Your task to perform on an android device: change the upload size in google photos Image 0: 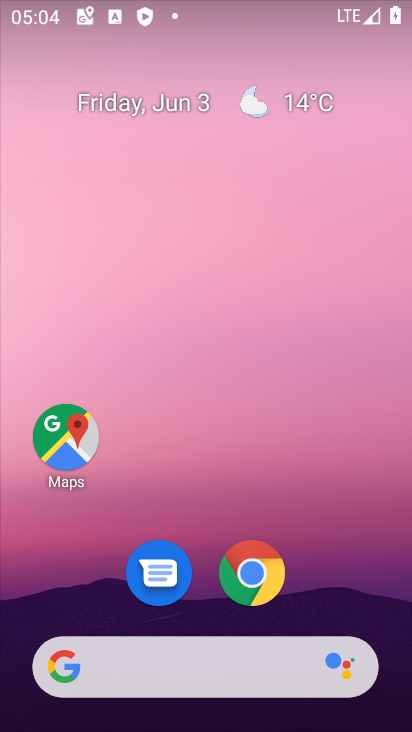
Step 0: drag from (320, 609) to (293, 157)
Your task to perform on an android device: change the upload size in google photos Image 1: 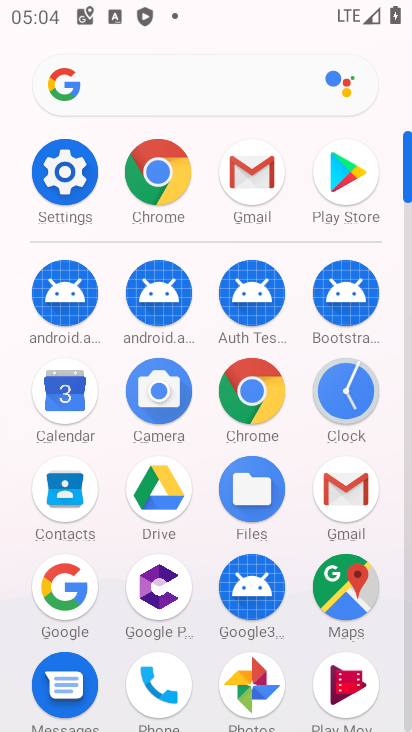
Step 1: click (250, 690)
Your task to perform on an android device: change the upload size in google photos Image 2: 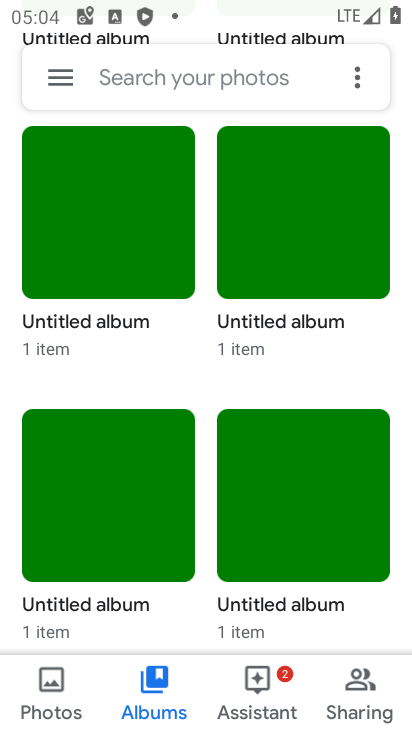
Step 2: click (355, 78)
Your task to perform on an android device: change the upload size in google photos Image 3: 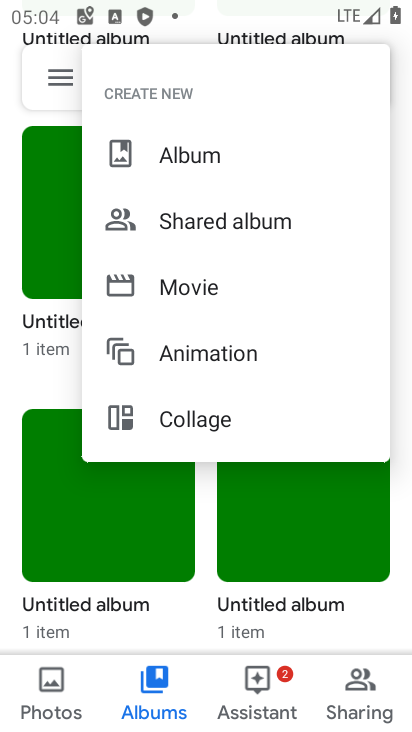
Step 3: click (53, 86)
Your task to perform on an android device: change the upload size in google photos Image 4: 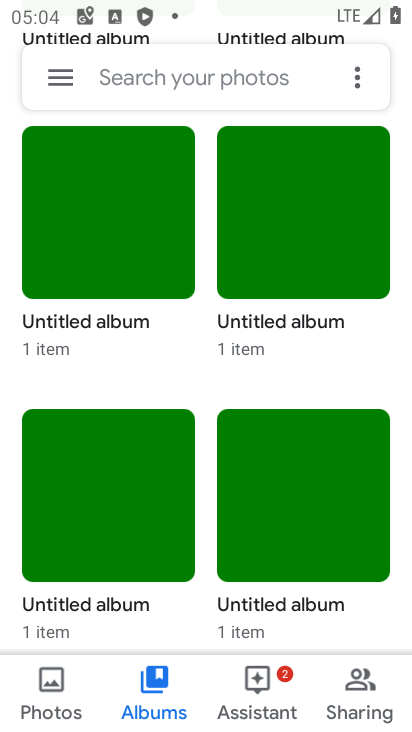
Step 4: click (54, 84)
Your task to perform on an android device: change the upload size in google photos Image 5: 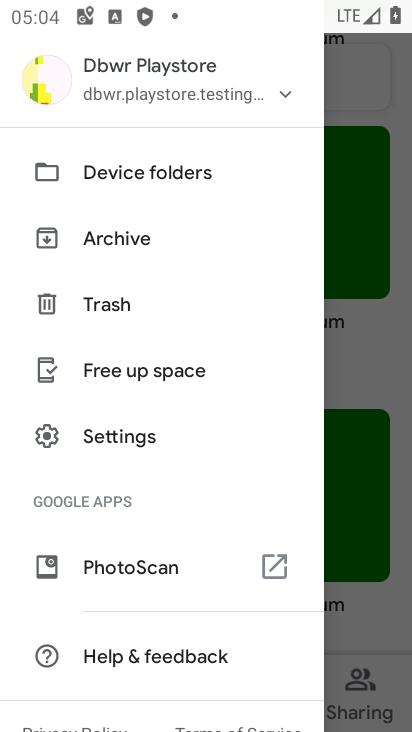
Step 5: click (159, 439)
Your task to perform on an android device: change the upload size in google photos Image 6: 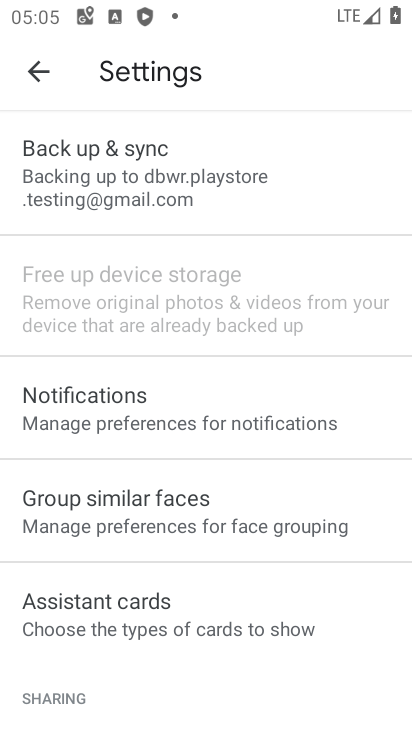
Step 6: drag from (194, 517) to (198, 232)
Your task to perform on an android device: change the upload size in google photos Image 7: 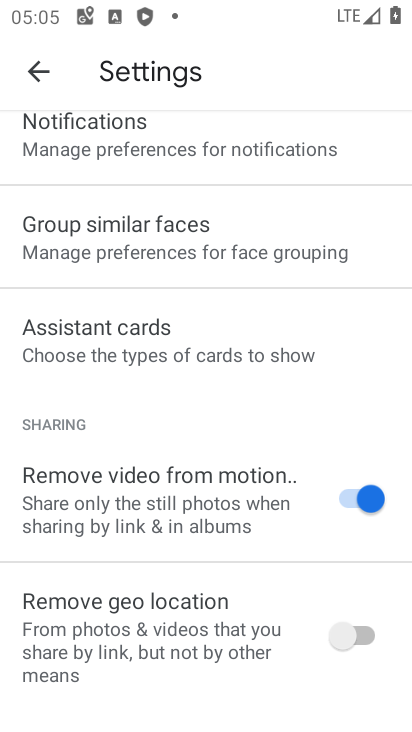
Step 7: drag from (194, 609) to (176, 268)
Your task to perform on an android device: change the upload size in google photos Image 8: 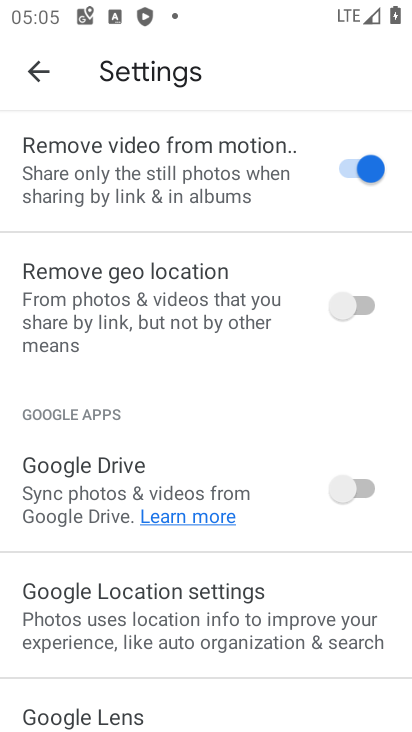
Step 8: drag from (216, 605) to (187, 270)
Your task to perform on an android device: change the upload size in google photos Image 9: 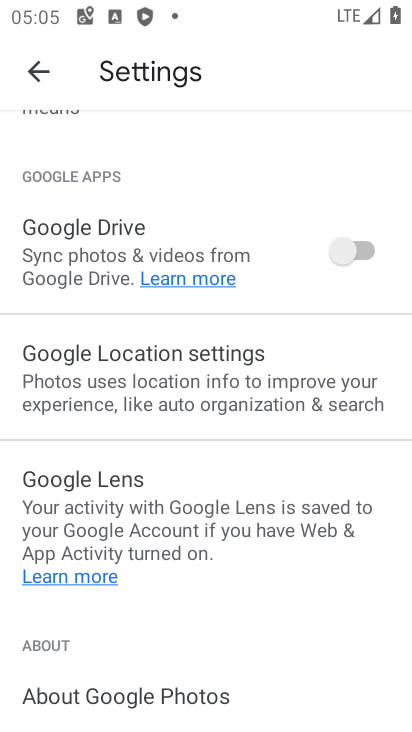
Step 9: drag from (191, 594) to (206, 253)
Your task to perform on an android device: change the upload size in google photos Image 10: 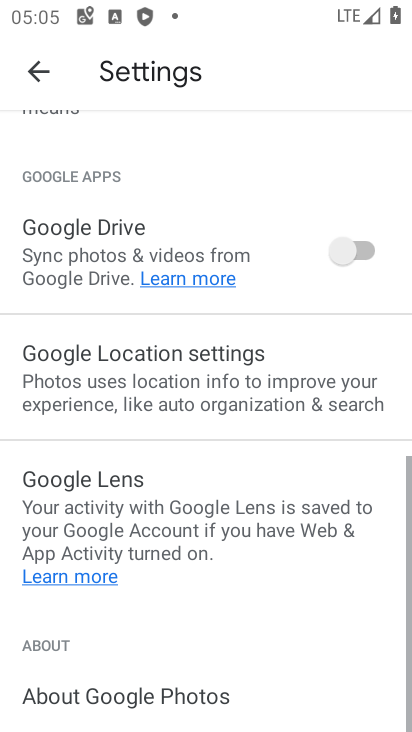
Step 10: drag from (234, 203) to (253, 513)
Your task to perform on an android device: change the upload size in google photos Image 11: 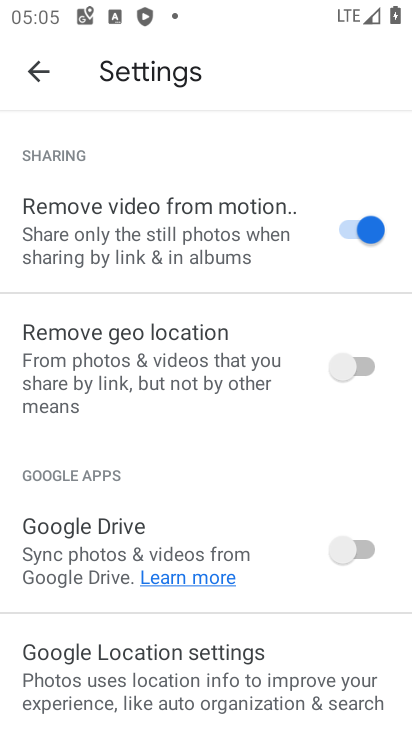
Step 11: drag from (236, 187) to (241, 411)
Your task to perform on an android device: change the upload size in google photos Image 12: 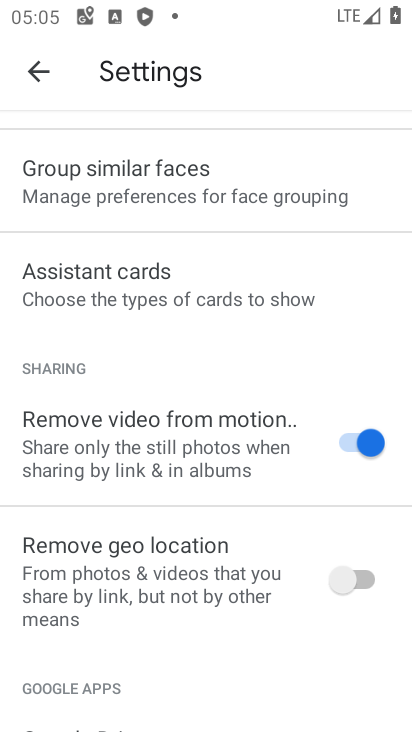
Step 12: drag from (228, 227) to (279, 512)
Your task to perform on an android device: change the upload size in google photos Image 13: 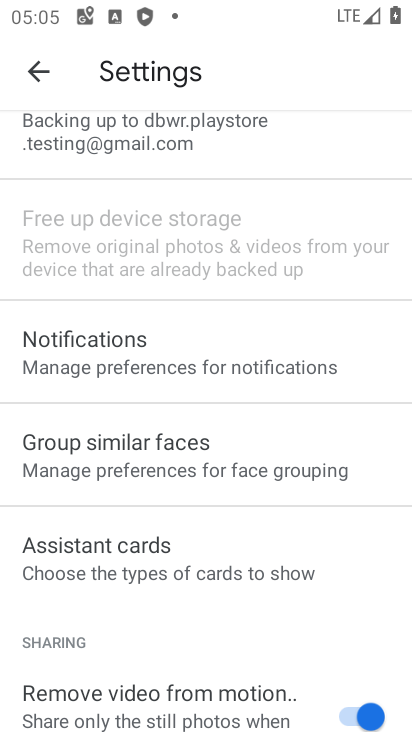
Step 13: drag from (330, 375) to (315, 158)
Your task to perform on an android device: change the upload size in google photos Image 14: 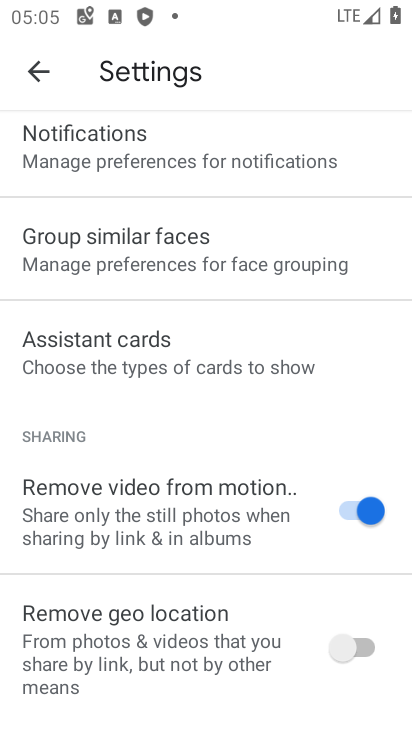
Step 14: drag from (309, 161) to (226, 555)
Your task to perform on an android device: change the upload size in google photos Image 15: 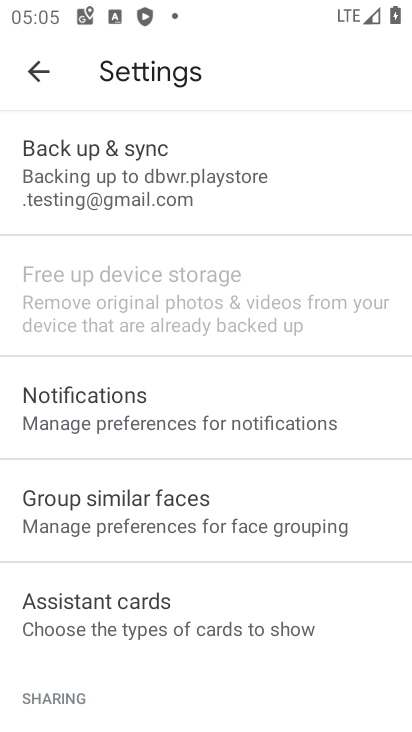
Step 15: drag from (215, 358) to (196, 595)
Your task to perform on an android device: change the upload size in google photos Image 16: 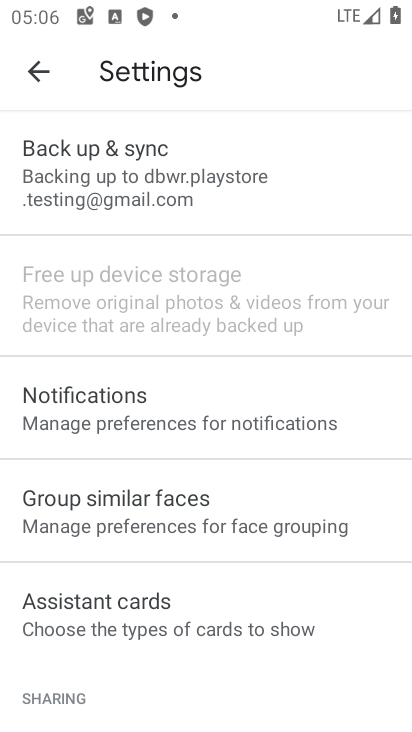
Step 16: drag from (227, 551) to (208, 318)
Your task to perform on an android device: change the upload size in google photos Image 17: 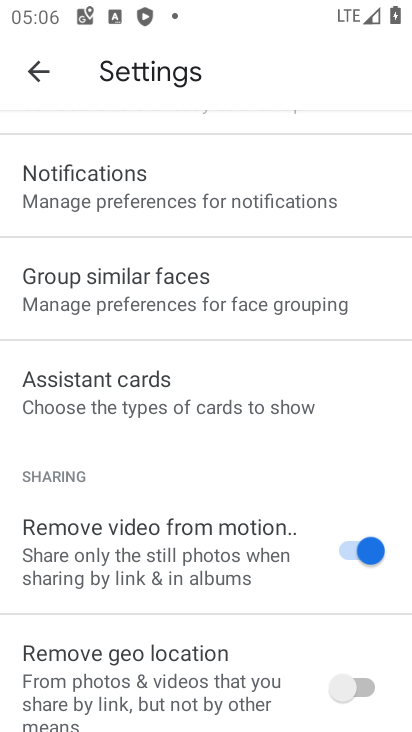
Step 17: click (302, 470)
Your task to perform on an android device: change the upload size in google photos Image 18: 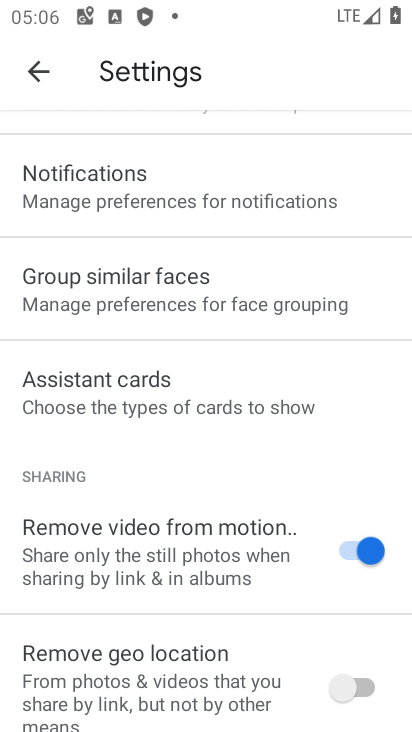
Step 18: drag from (227, 229) to (284, 727)
Your task to perform on an android device: change the upload size in google photos Image 19: 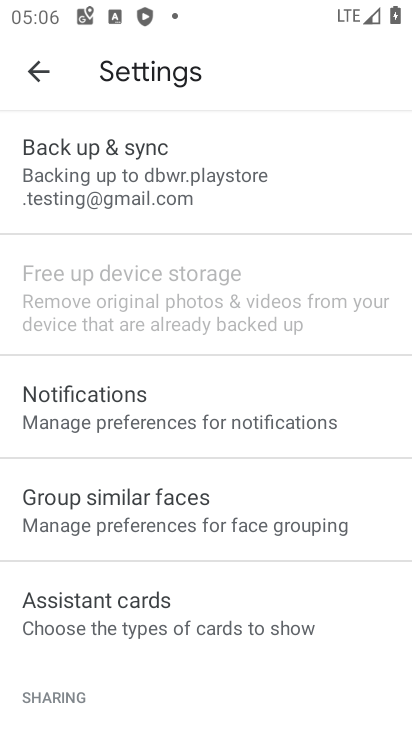
Step 19: drag from (275, 159) to (295, 731)
Your task to perform on an android device: change the upload size in google photos Image 20: 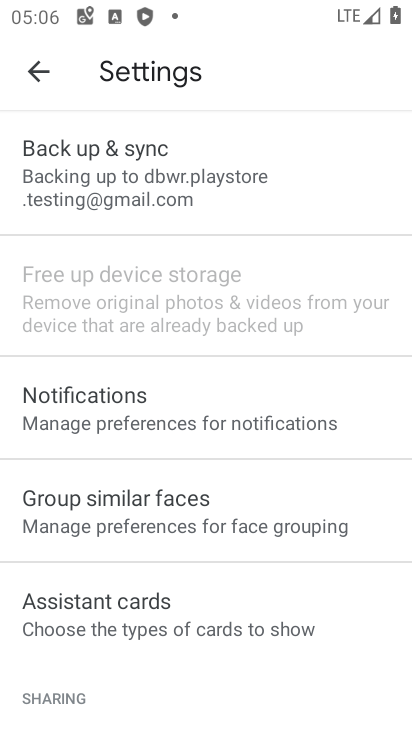
Step 20: click (126, 180)
Your task to perform on an android device: change the upload size in google photos Image 21: 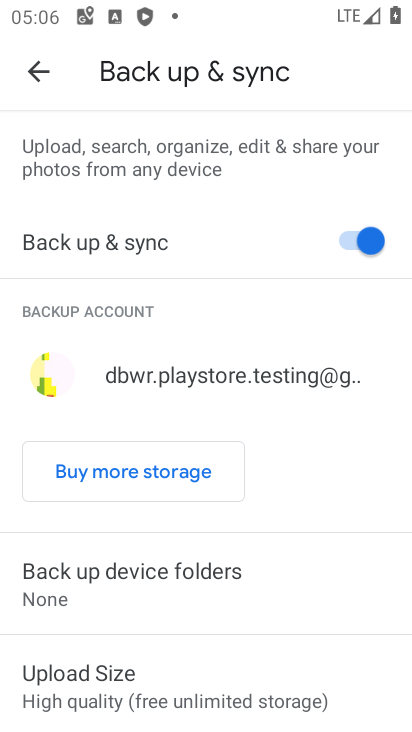
Step 21: drag from (99, 623) to (152, 252)
Your task to perform on an android device: change the upload size in google photos Image 22: 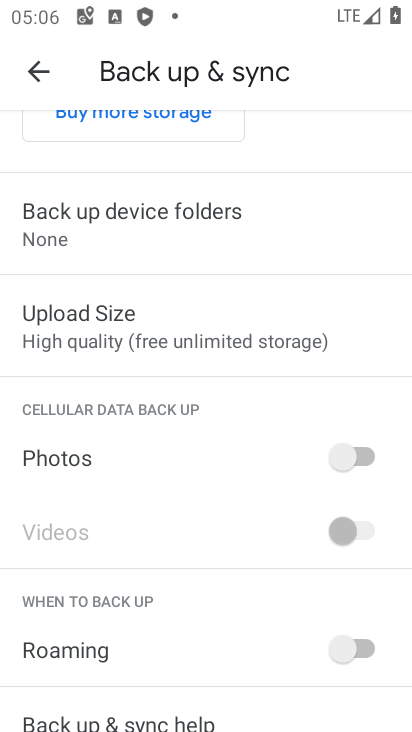
Step 22: click (283, 331)
Your task to perform on an android device: change the upload size in google photos Image 23: 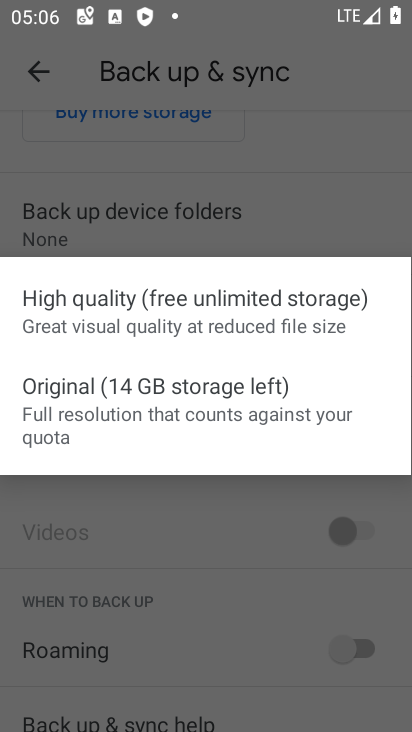
Step 23: click (127, 520)
Your task to perform on an android device: change the upload size in google photos Image 24: 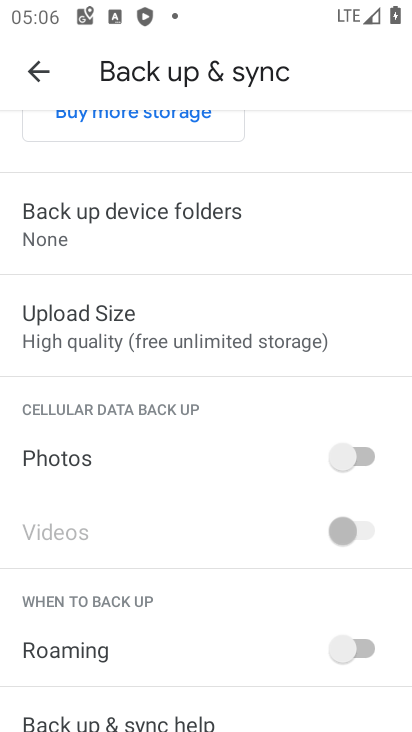
Step 24: click (153, 332)
Your task to perform on an android device: change the upload size in google photos Image 25: 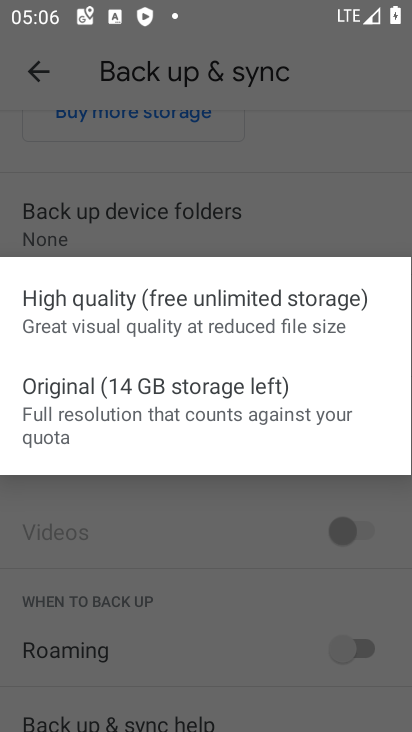
Step 25: click (137, 418)
Your task to perform on an android device: change the upload size in google photos Image 26: 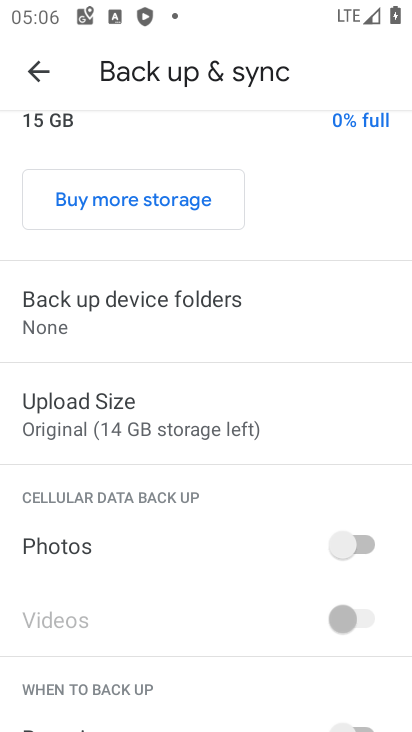
Step 26: task complete